Your task to perform on an android device: install app "NewsBreak: Local News & Alerts" Image 0: 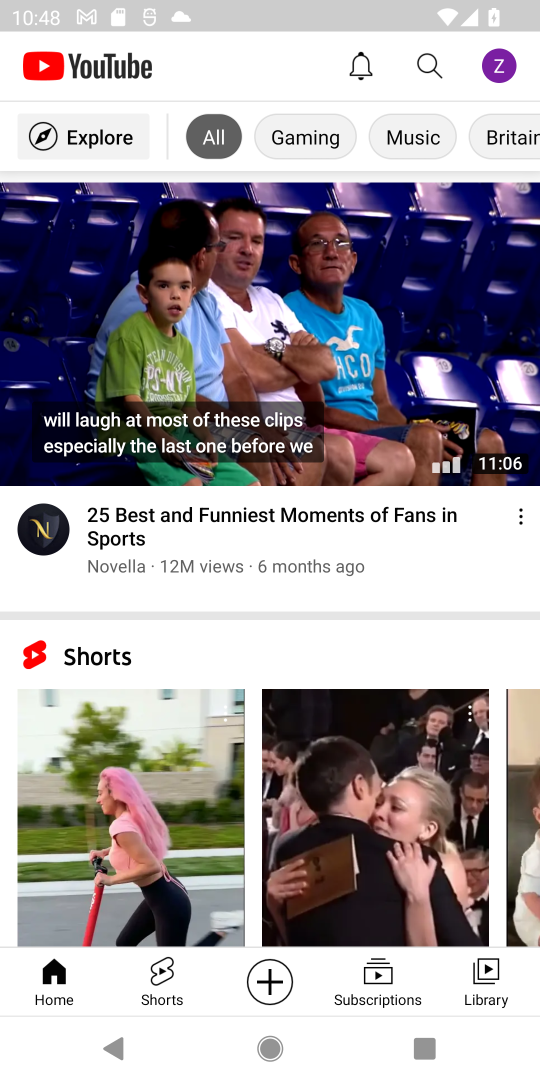
Step 0: press home button
Your task to perform on an android device: install app "NewsBreak: Local News & Alerts" Image 1: 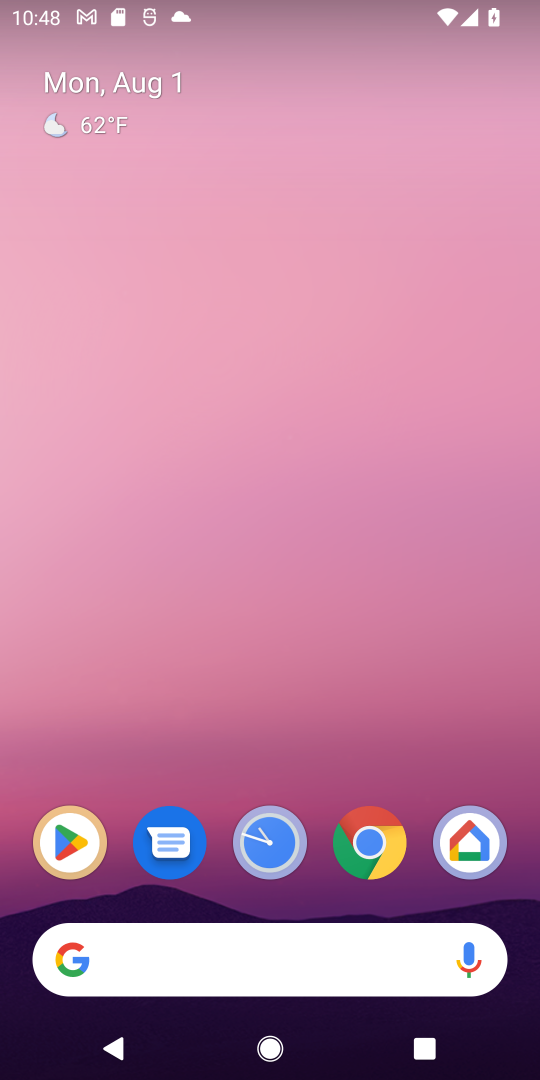
Step 1: click (65, 842)
Your task to perform on an android device: install app "NewsBreak: Local News & Alerts" Image 2: 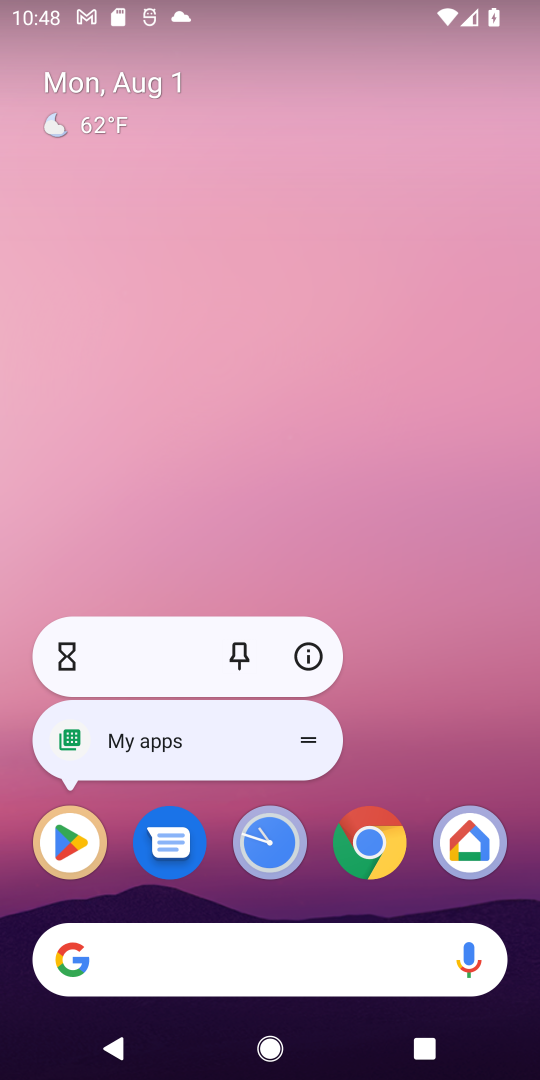
Step 2: click (67, 832)
Your task to perform on an android device: install app "NewsBreak: Local News & Alerts" Image 3: 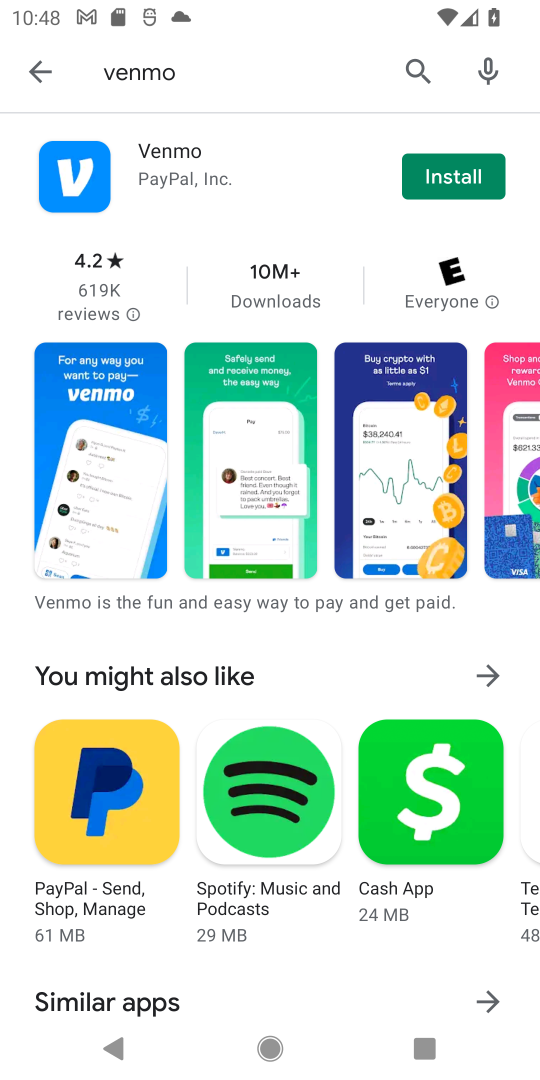
Step 3: click (403, 66)
Your task to perform on an android device: install app "NewsBreak: Local News & Alerts" Image 4: 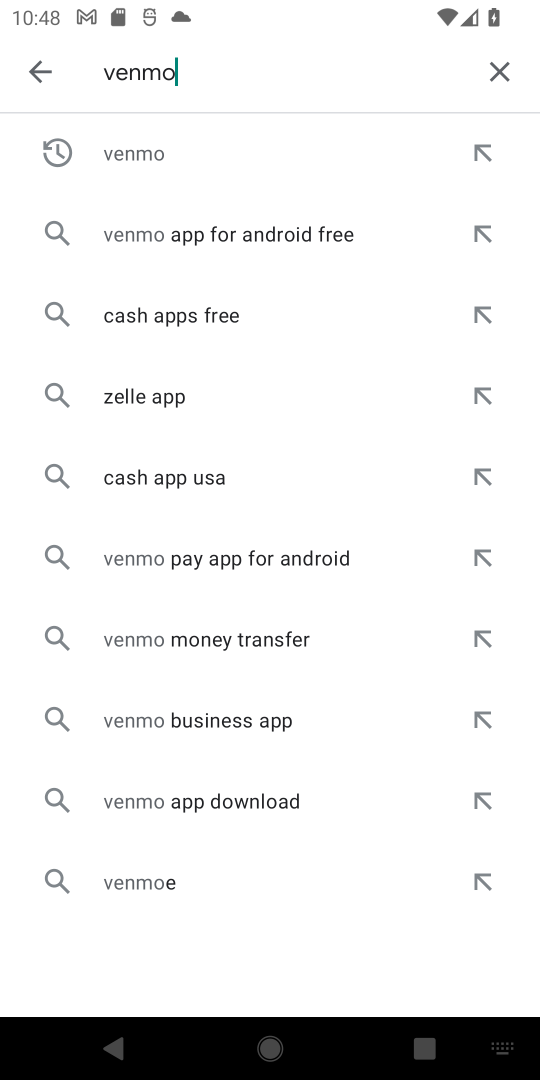
Step 4: click (512, 54)
Your task to perform on an android device: install app "NewsBreak: Local News & Alerts" Image 5: 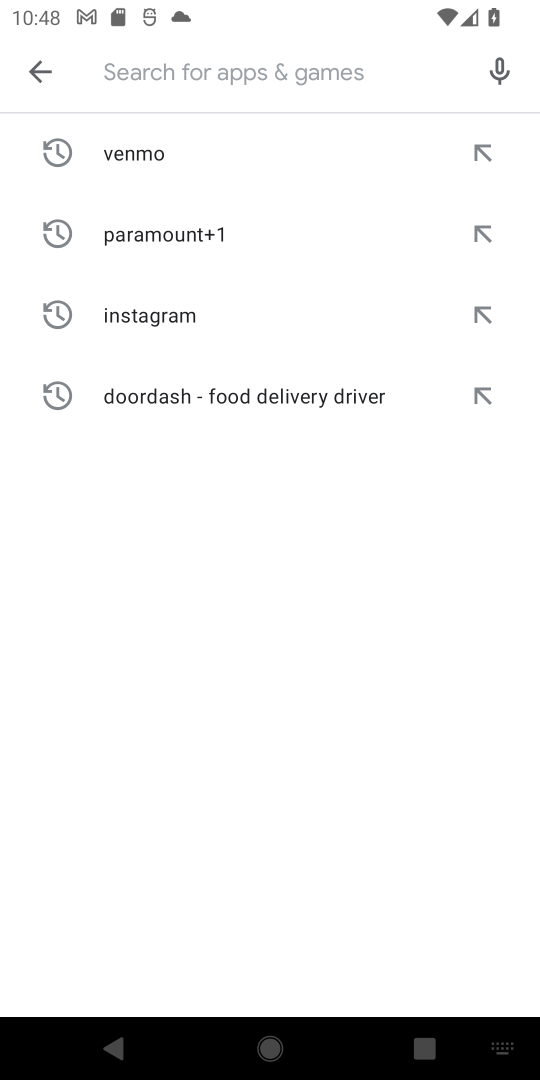
Step 5: click (191, 64)
Your task to perform on an android device: install app "NewsBreak: Local News & Alerts" Image 6: 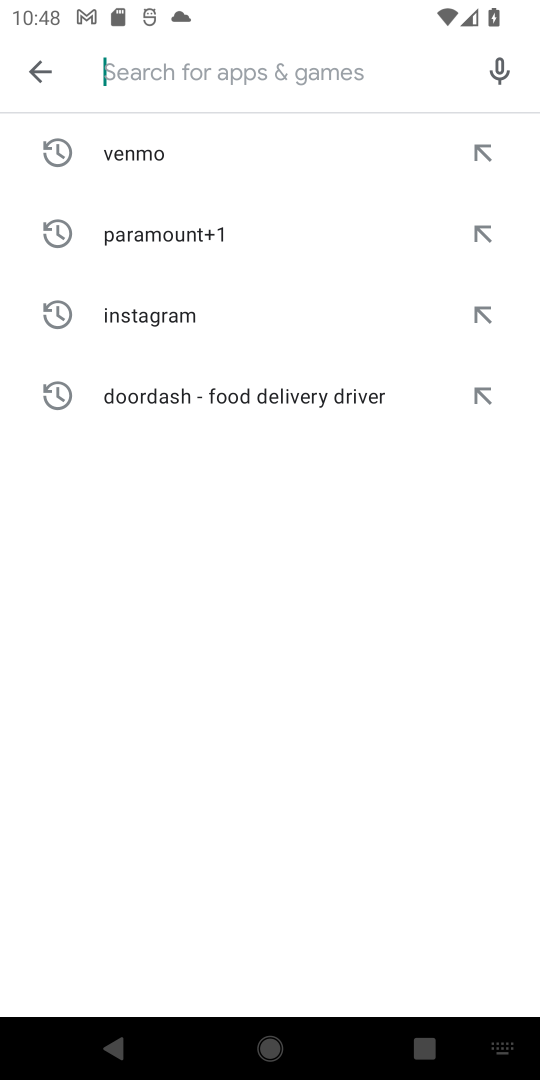
Step 6: type "NewsBreak: Local News & Alerts"
Your task to perform on an android device: install app "NewsBreak: Local News & Alerts" Image 7: 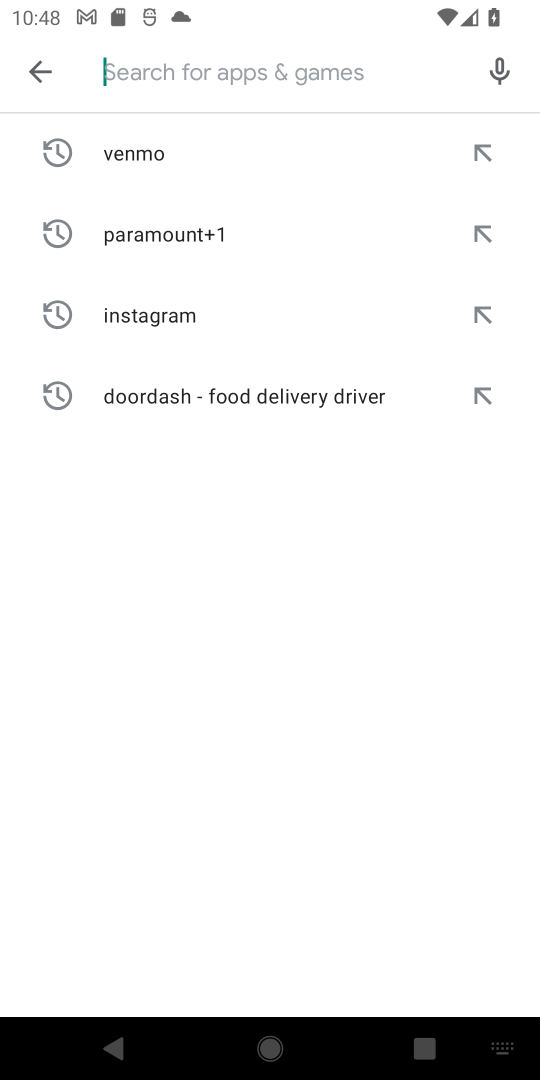
Step 7: click (268, 540)
Your task to perform on an android device: install app "NewsBreak: Local News & Alerts" Image 8: 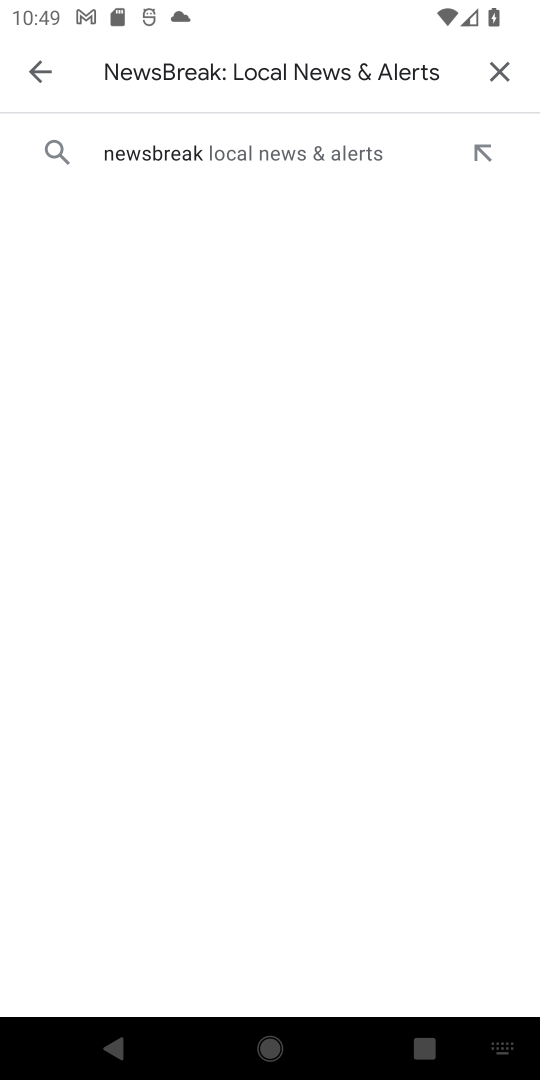
Step 8: click (254, 153)
Your task to perform on an android device: install app "NewsBreak: Local News & Alerts" Image 9: 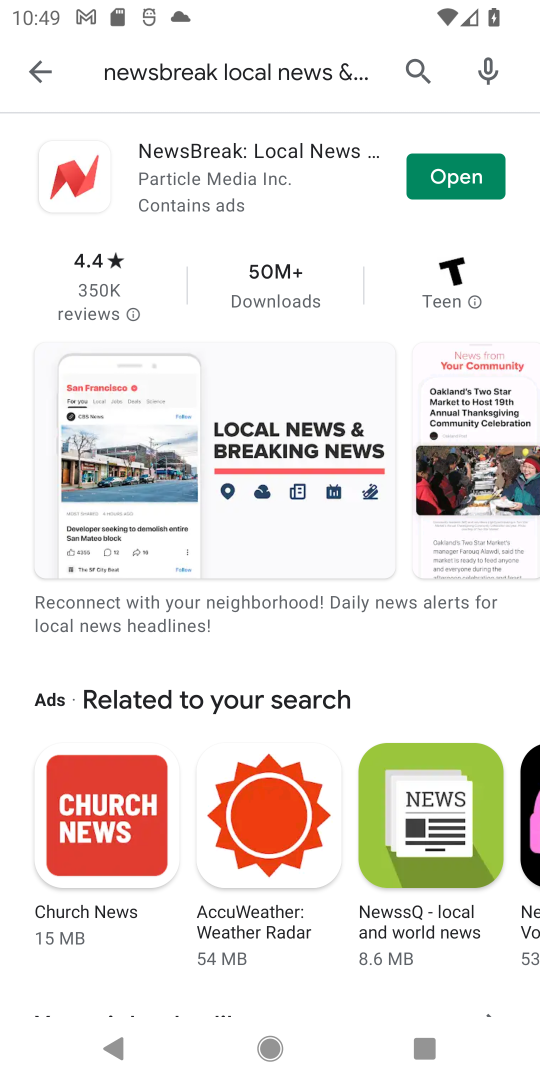
Step 9: click (192, 165)
Your task to perform on an android device: install app "NewsBreak: Local News & Alerts" Image 10: 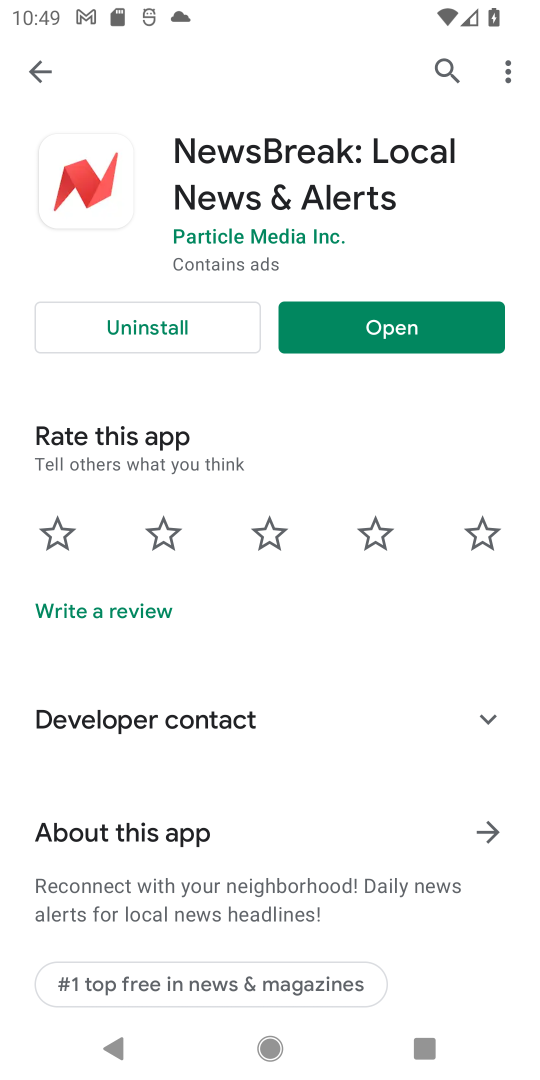
Step 10: task complete